Your task to perform on an android device: change alarm snooze length Image 0: 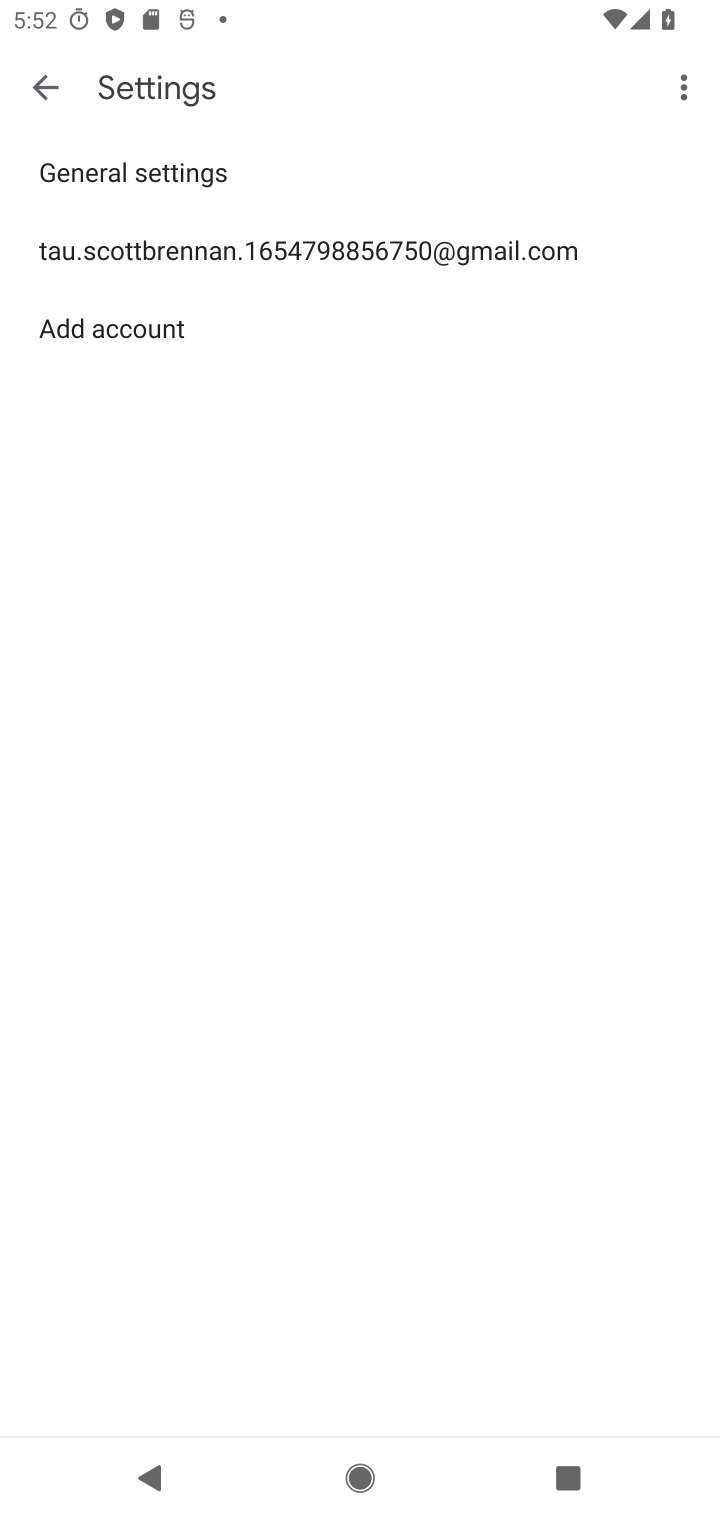
Step 0: press home button
Your task to perform on an android device: change alarm snooze length Image 1: 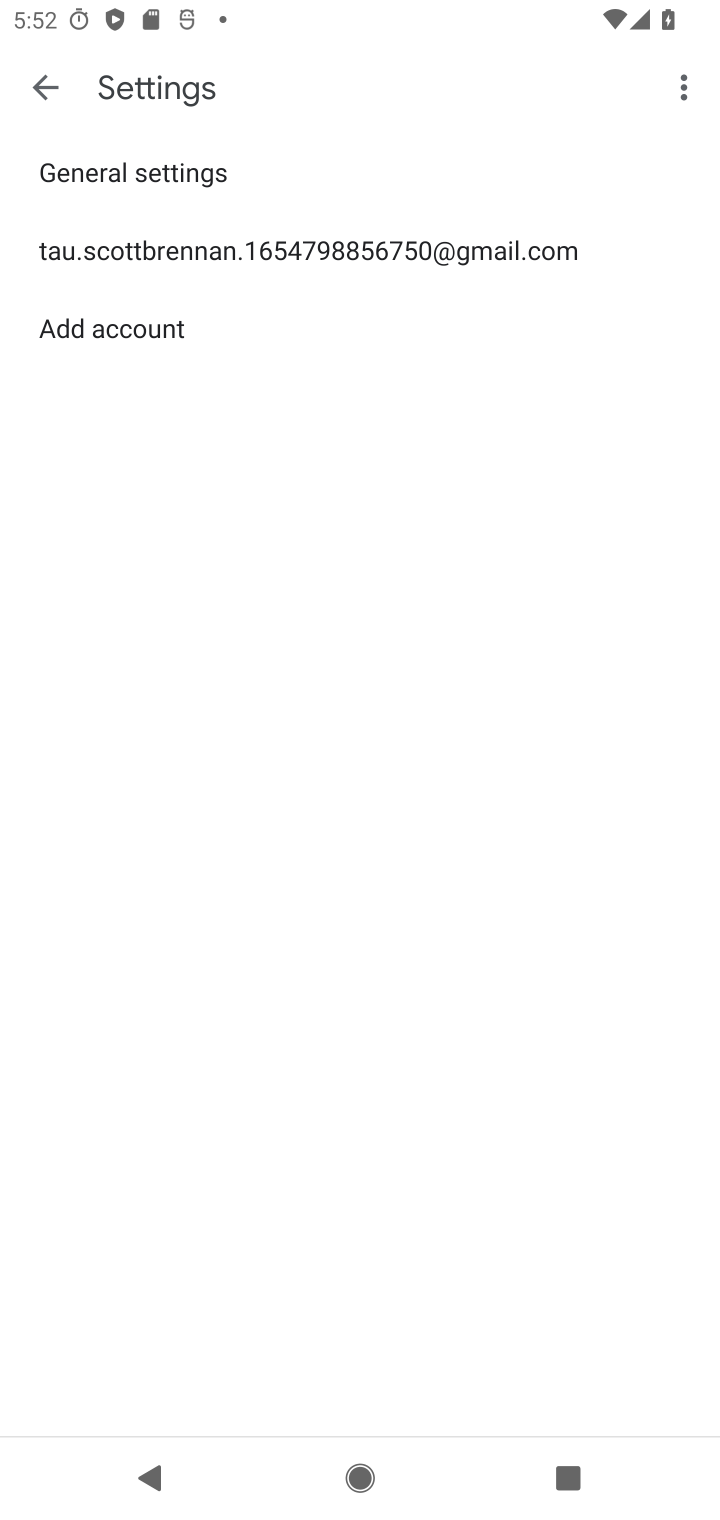
Step 1: press home button
Your task to perform on an android device: change alarm snooze length Image 2: 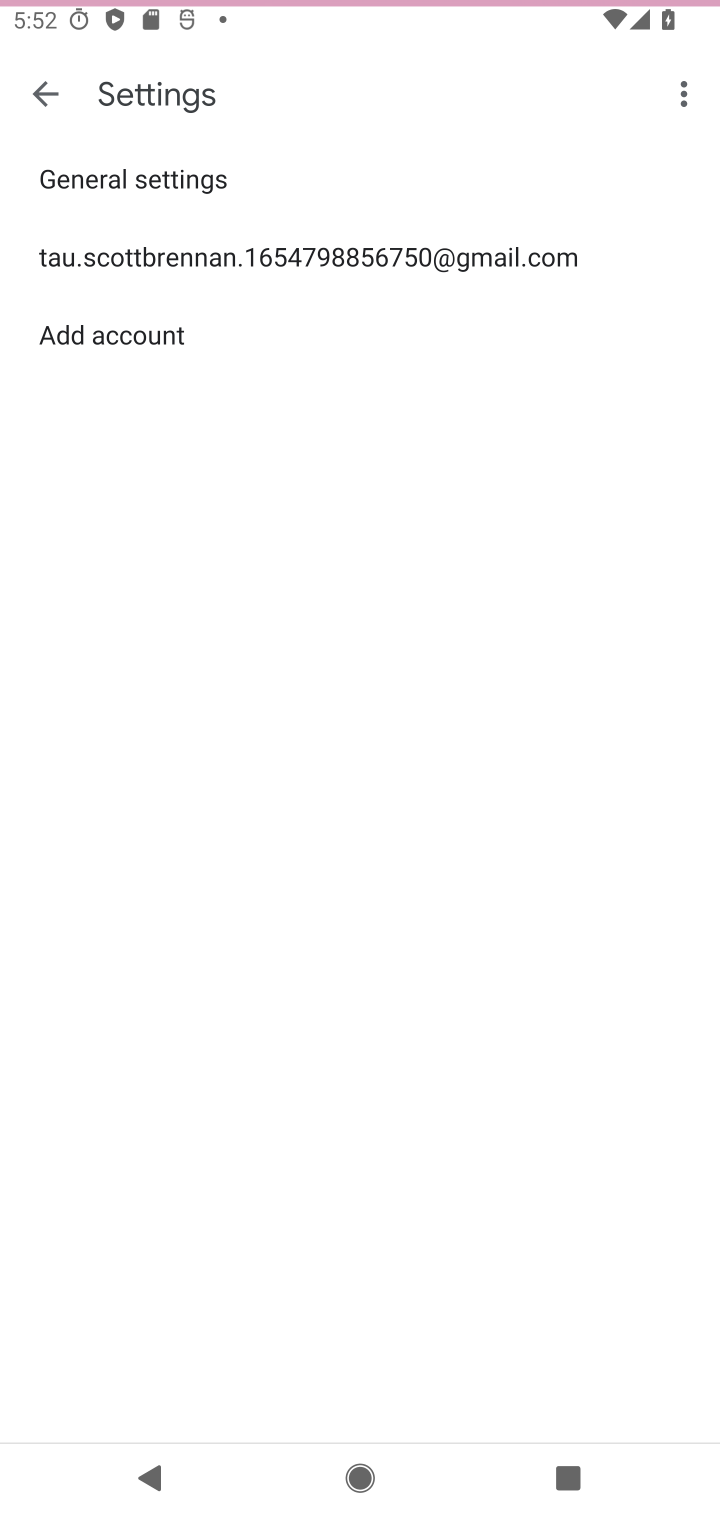
Step 2: press home button
Your task to perform on an android device: change alarm snooze length Image 3: 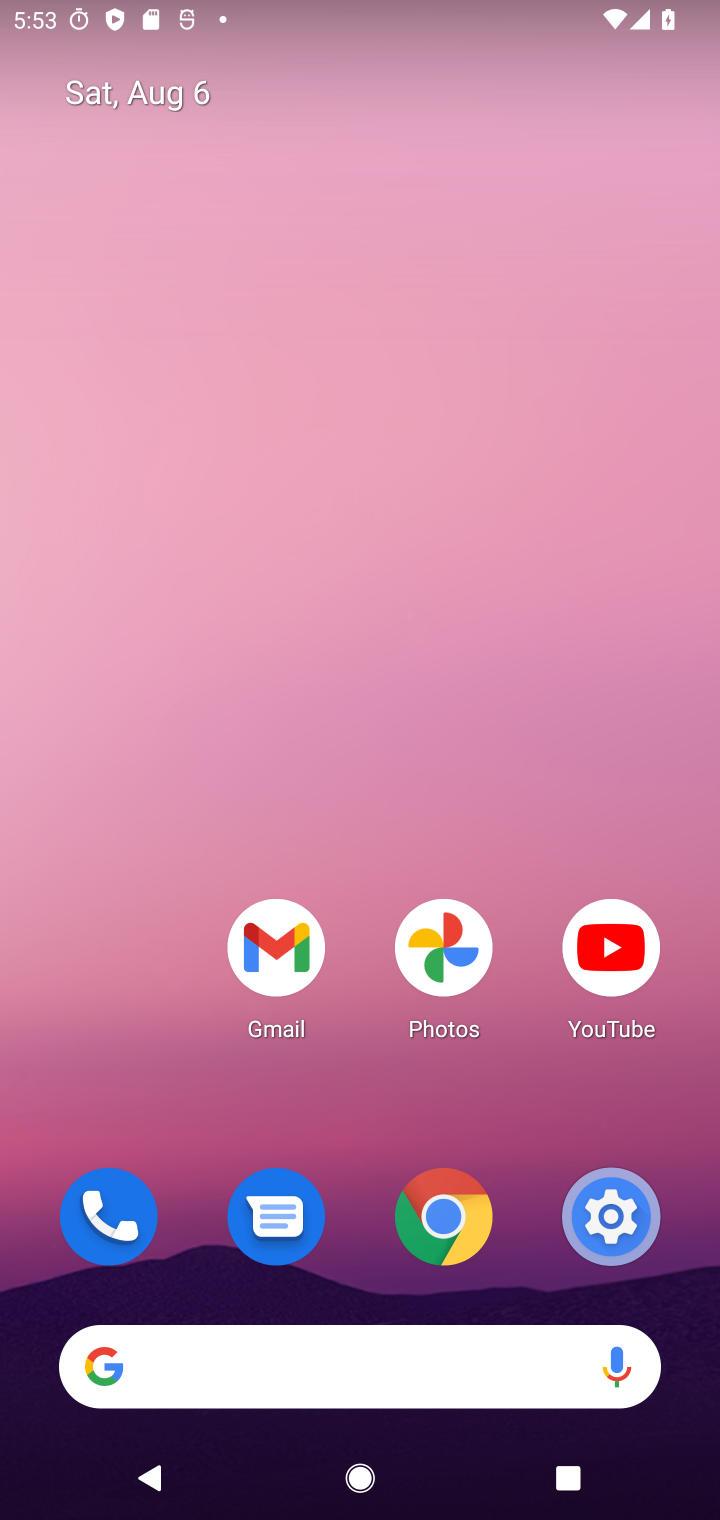
Step 3: drag from (360, 1006) to (365, 5)
Your task to perform on an android device: change alarm snooze length Image 4: 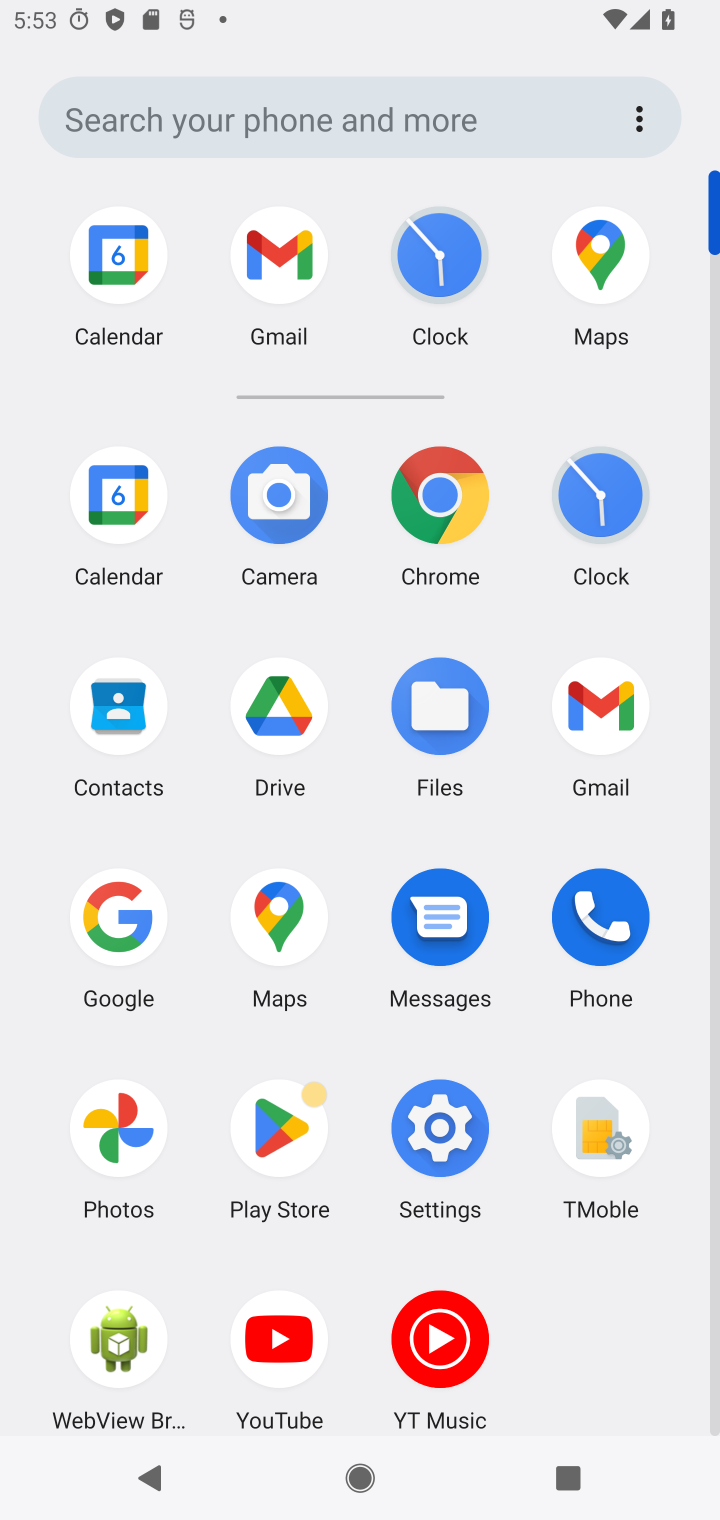
Step 4: click (592, 493)
Your task to perform on an android device: change alarm snooze length Image 5: 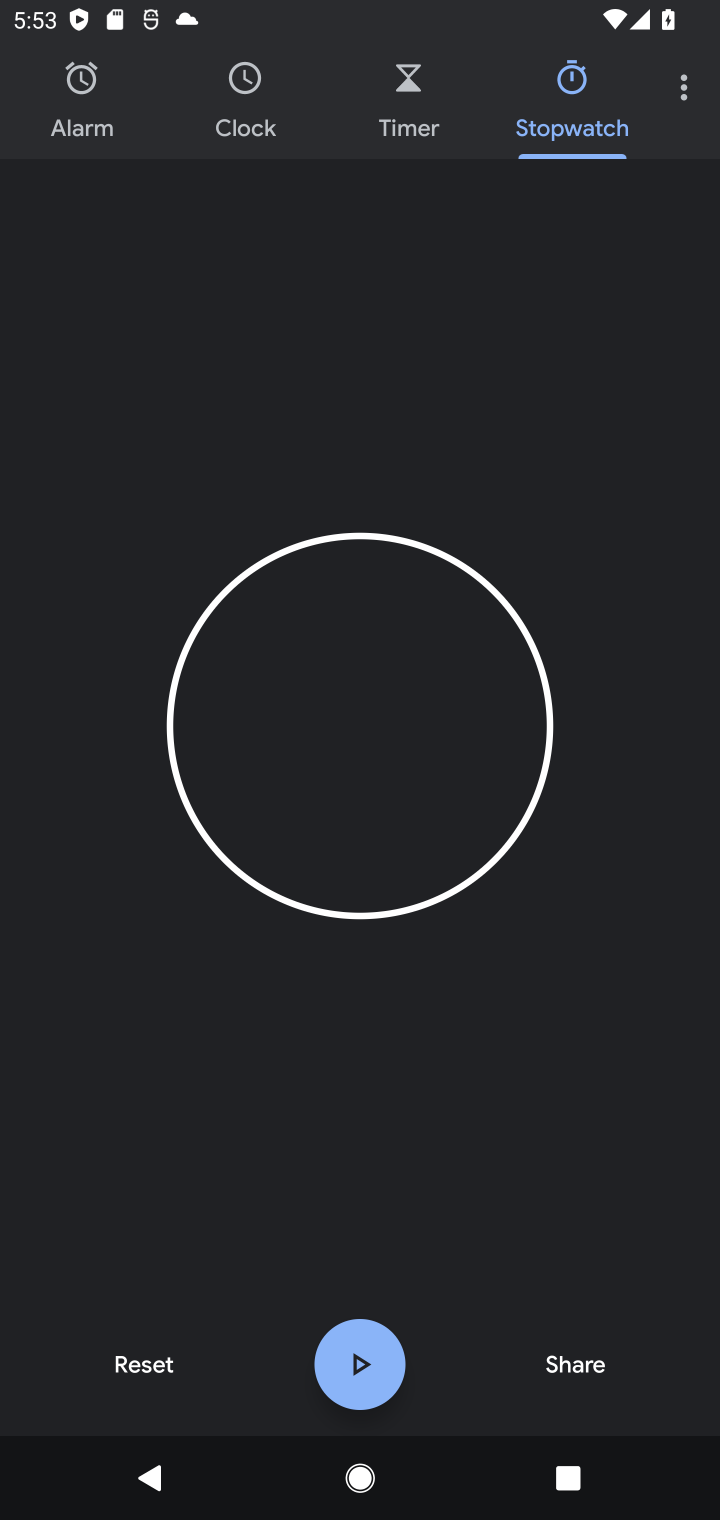
Step 5: click (666, 79)
Your task to perform on an android device: change alarm snooze length Image 6: 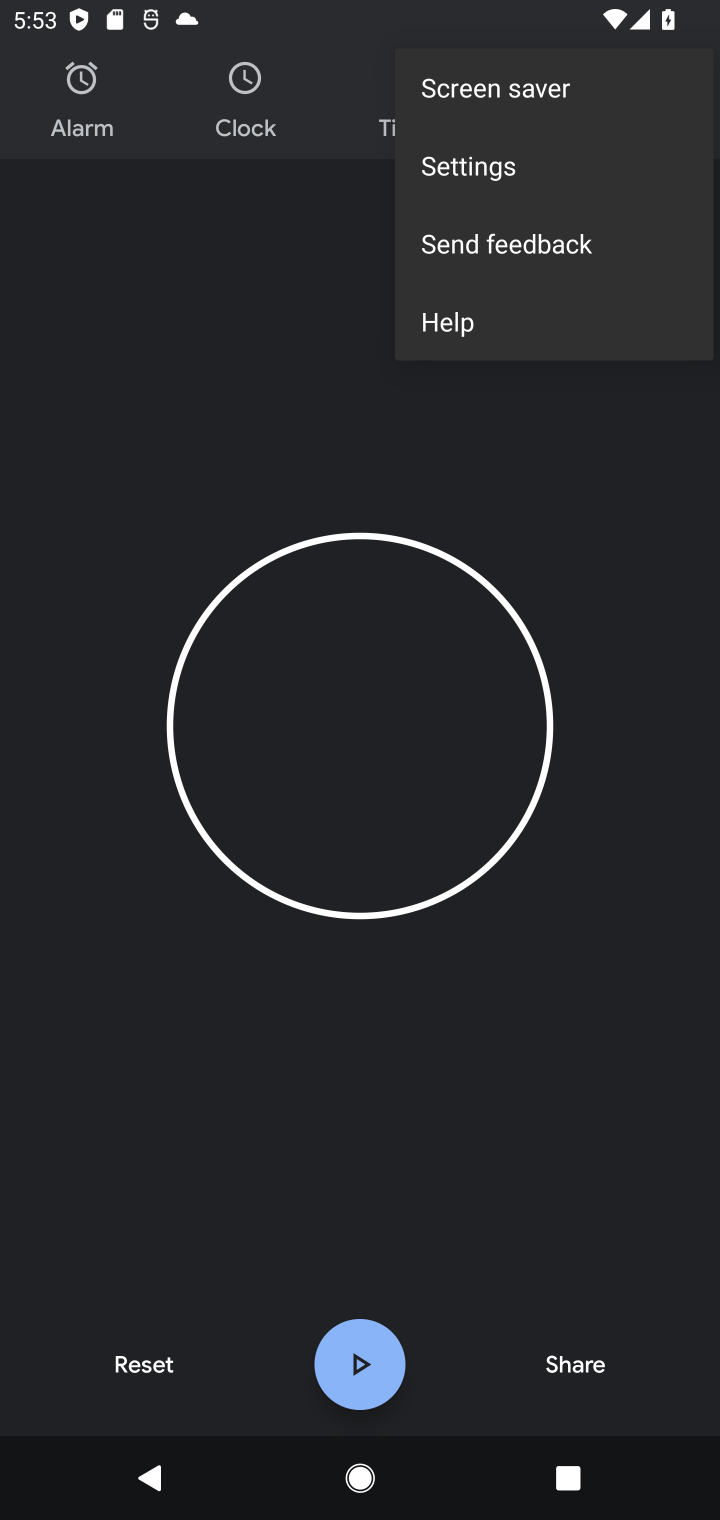
Step 6: click (514, 185)
Your task to perform on an android device: change alarm snooze length Image 7: 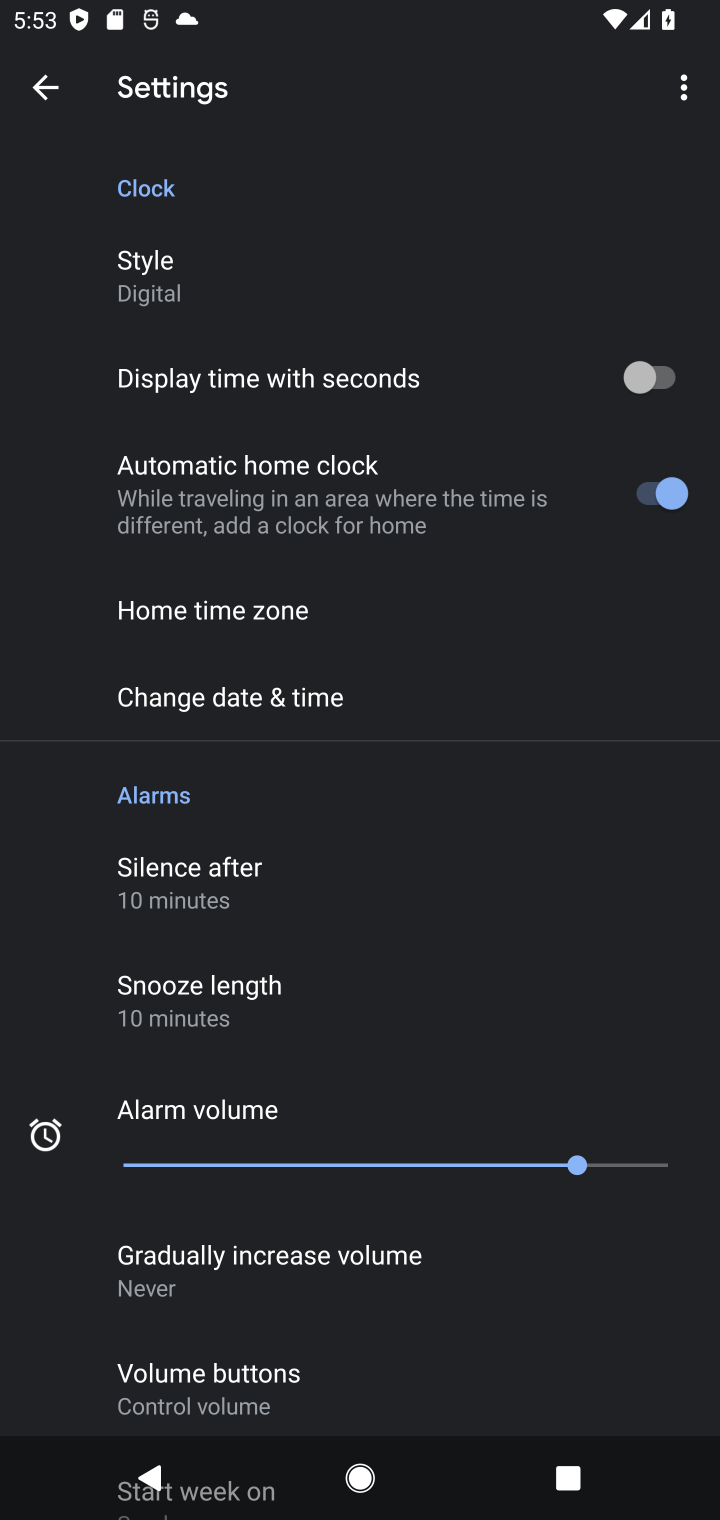
Step 7: click (206, 1019)
Your task to perform on an android device: change alarm snooze length Image 8: 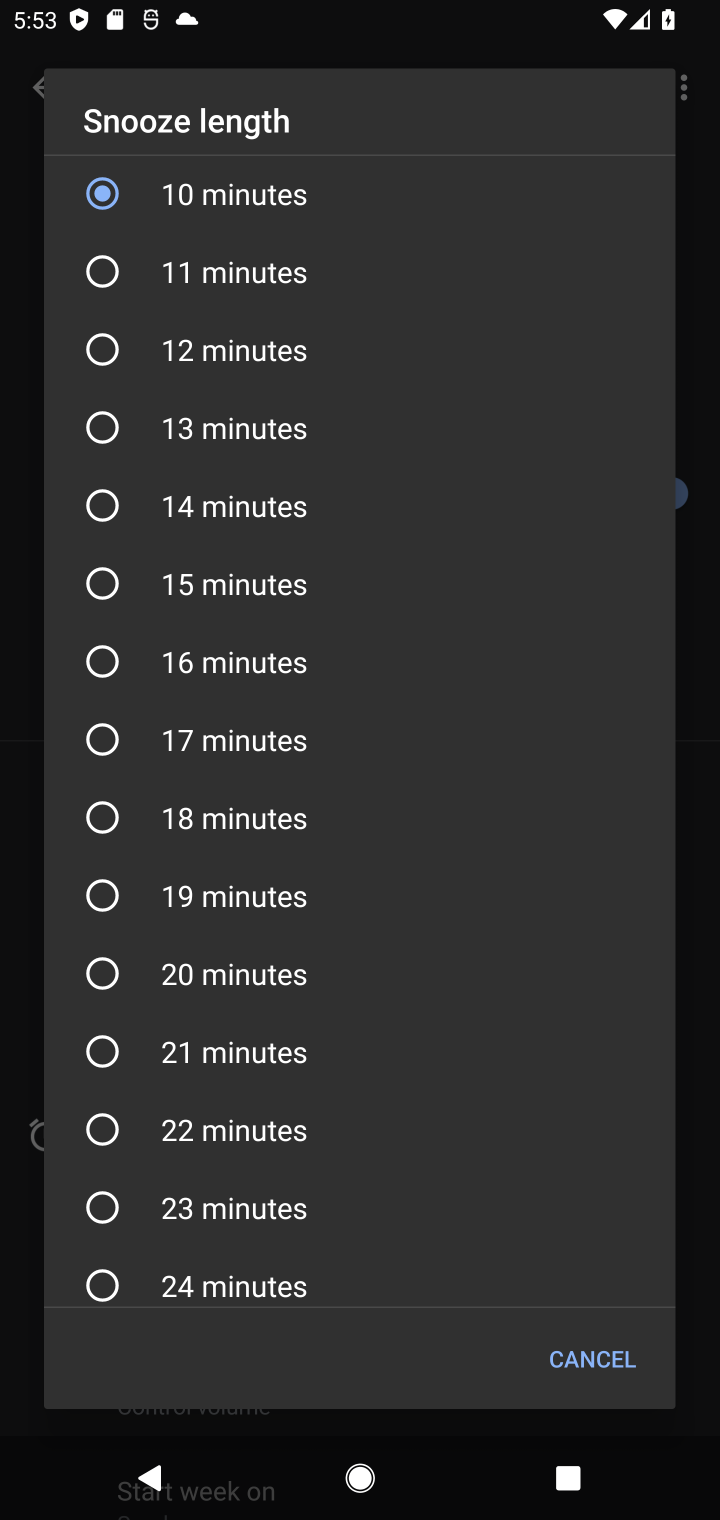
Step 8: click (266, 286)
Your task to perform on an android device: change alarm snooze length Image 9: 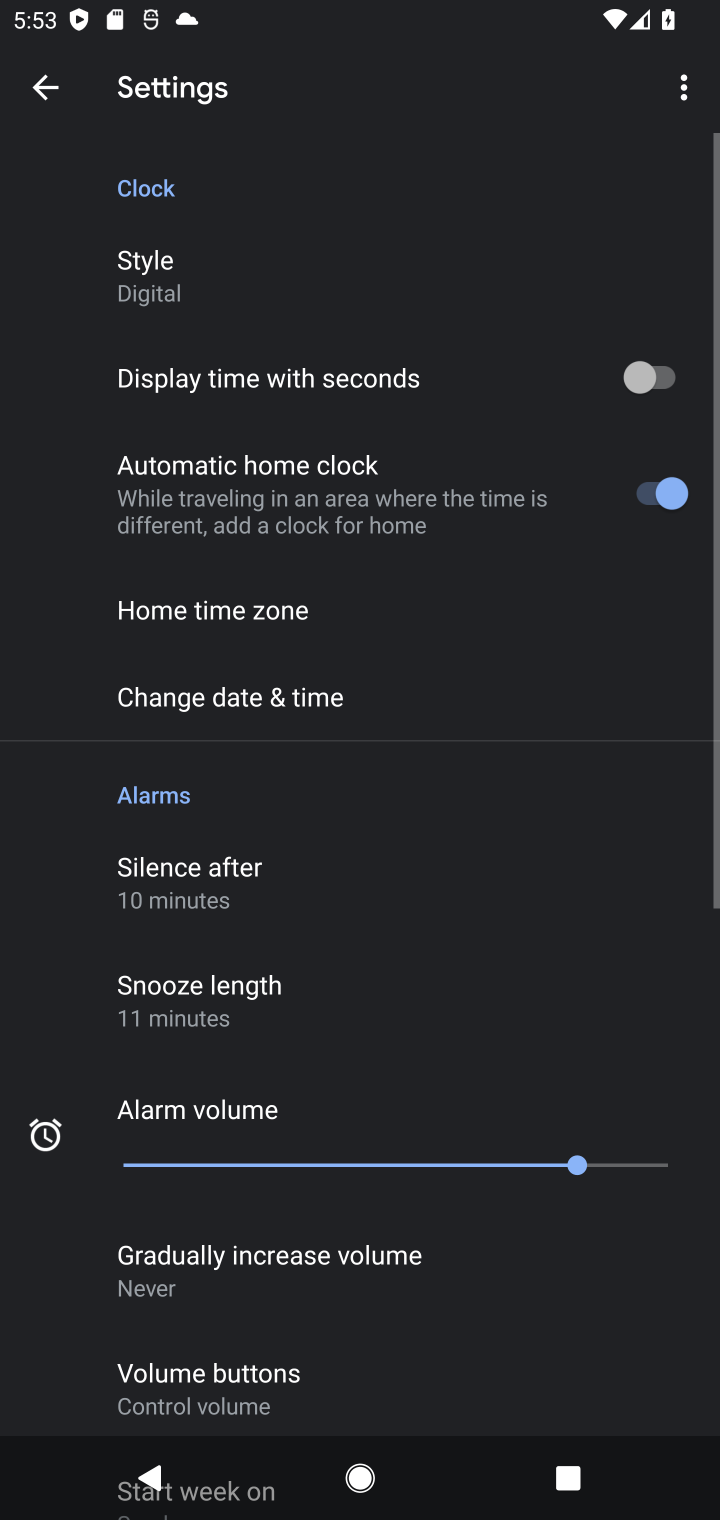
Step 9: task complete